Your task to perform on an android device: Go to notification settings Image 0: 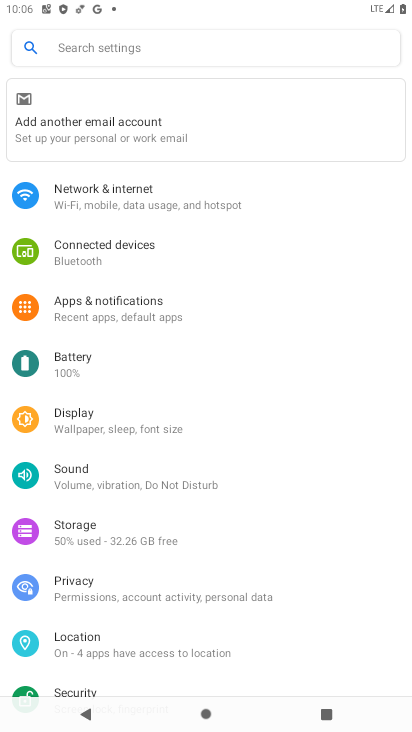
Step 0: click (104, 301)
Your task to perform on an android device: Go to notification settings Image 1: 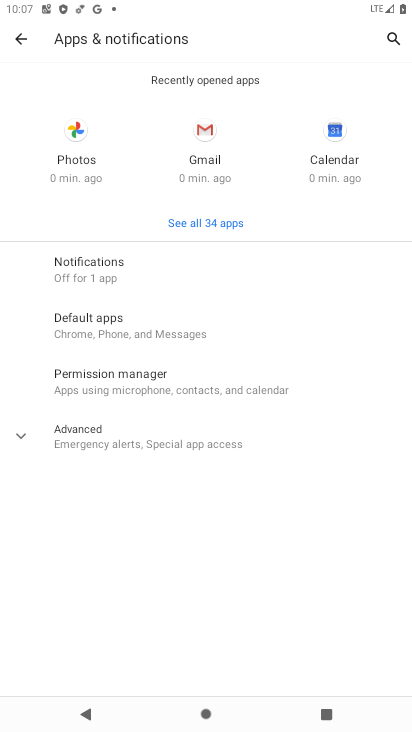
Step 1: task complete